Your task to perform on an android device: Check the news Image 0: 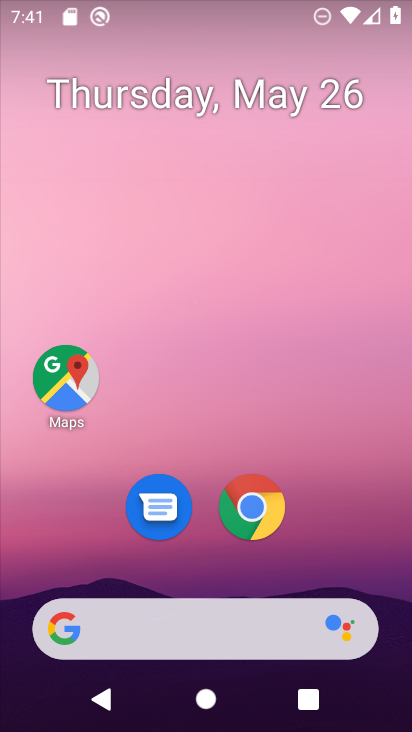
Step 0: click (157, 636)
Your task to perform on an android device: Check the news Image 1: 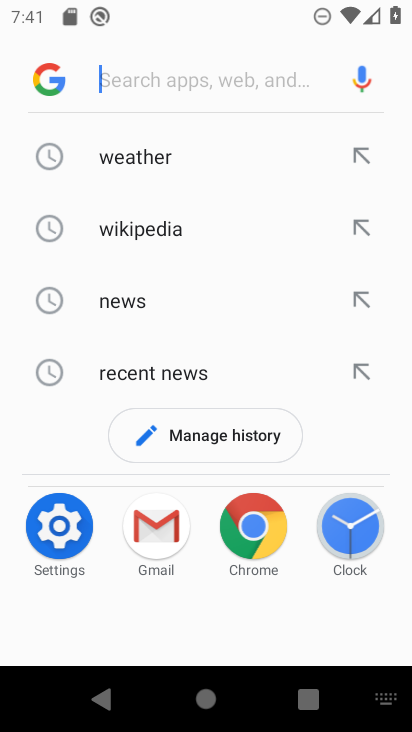
Step 1: click (119, 300)
Your task to perform on an android device: Check the news Image 2: 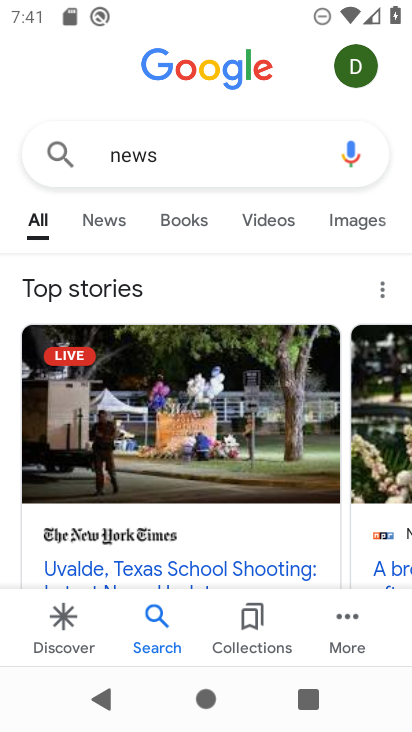
Step 2: task complete